Your task to perform on an android device: delete the emails in spam in the gmail app Image 0: 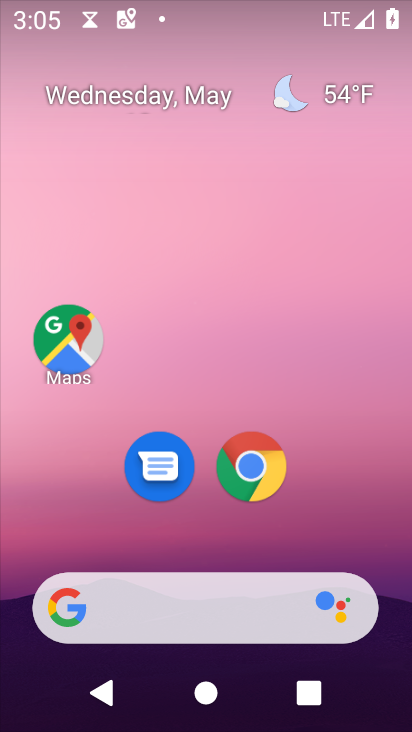
Step 0: drag from (364, 516) to (250, 52)
Your task to perform on an android device: delete the emails in spam in the gmail app Image 1: 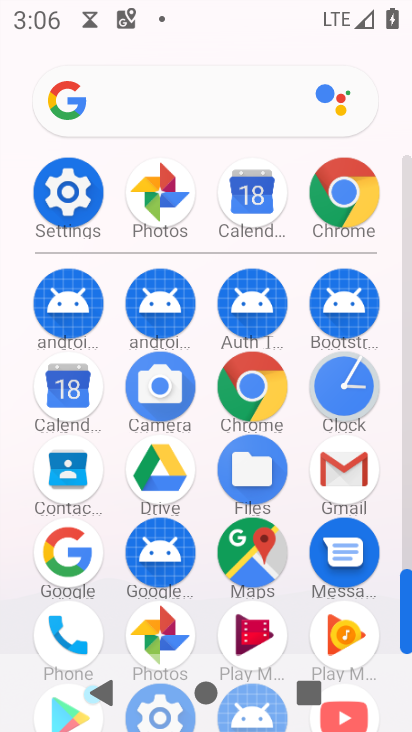
Step 1: click (337, 470)
Your task to perform on an android device: delete the emails in spam in the gmail app Image 2: 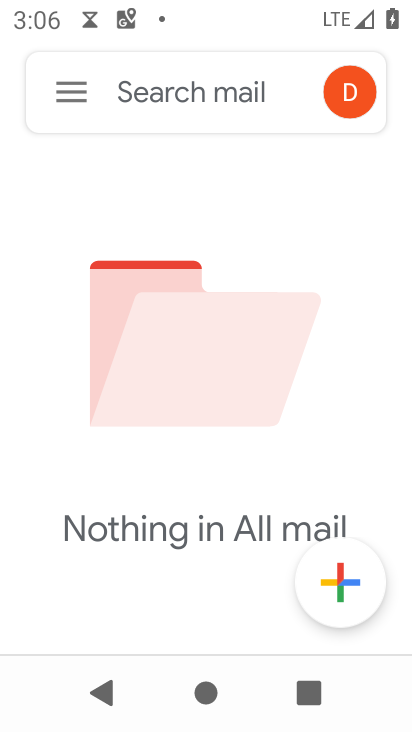
Step 2: click (73, 84)
Your task to perform on an android device: delete the emails in spam in the gmail app Image 3: 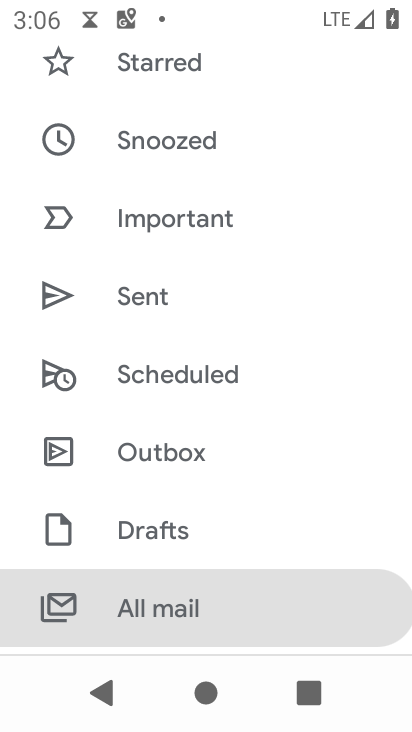
Step 3: drag from (246, 485) to (193, 154)
Your task to perform on an android device: delete the emails in spam in the gmail app Image 4: 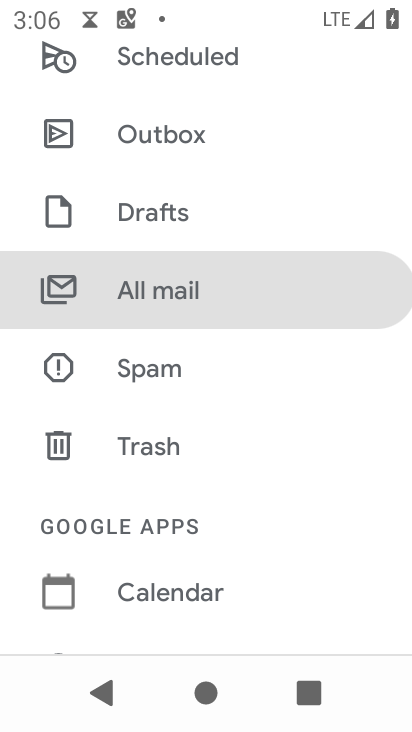
Step 4: click (178, 390)
Your task to perform on an android device: delete the emails in spam in the gmail app Image 5: 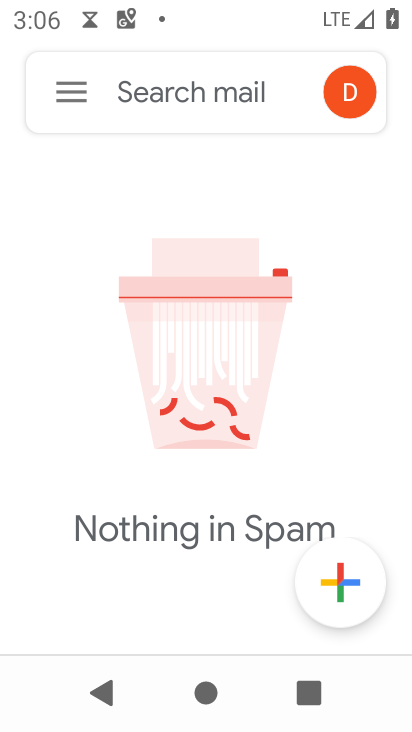
Step 5: task complete